Your task to perform on an android device: Do I have any events this weekend? Image 0: 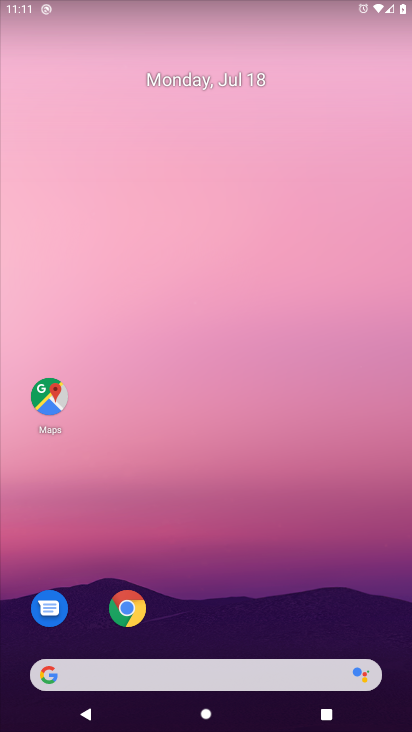
Step 0: drag from (33, 707) to (178, 237)
Your task to perform on an android device: Do I have any events this weekend? Image 1: 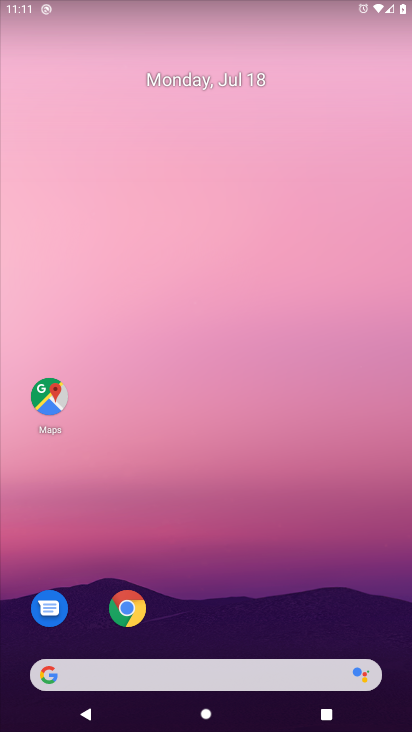
Step 1: drag from (19, 710) to (302, 63)
Your task to perform on an android device: Do I have any events this weekend? Image 2: 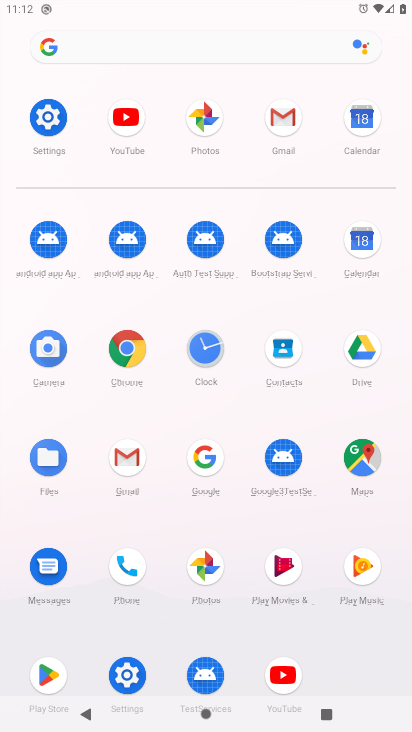
Step 2: click (211, 348)
Your task to perform on an android device: Do I have any events this weekend? Image 3: 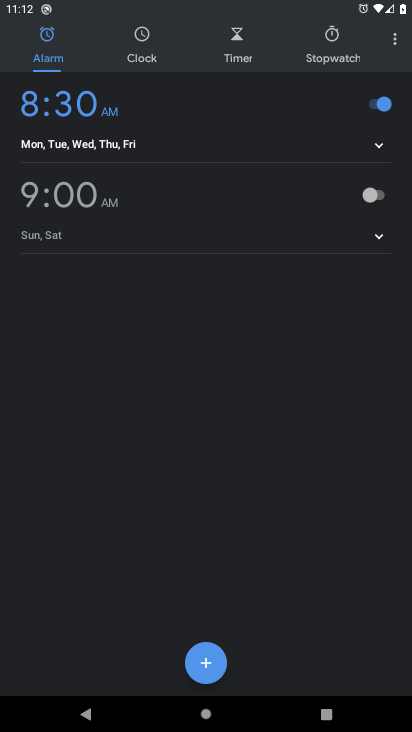
Step 3: task complete